Your task to perform on an android device: Is it going to rain this weekend? Image 0: 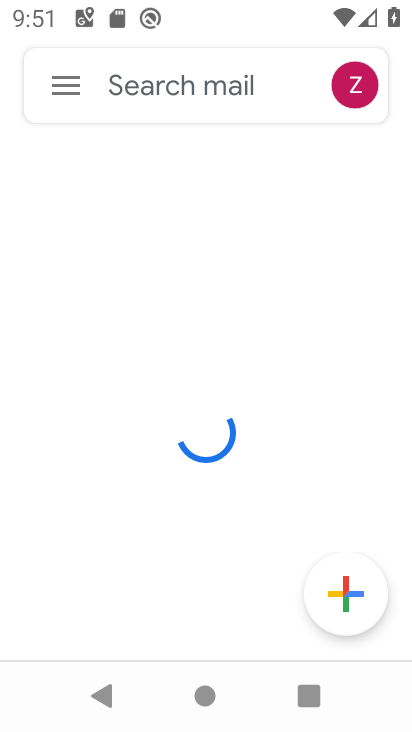
Step 0: press home button
Your task to perform on an android device: Is it going to rain this weekend? Image 1: 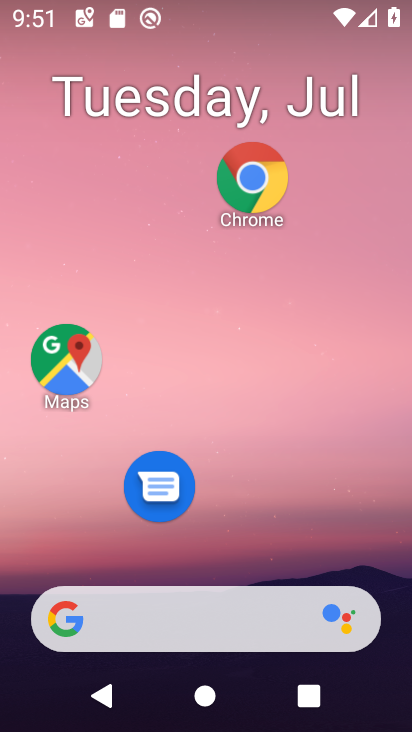
Step 1: drag from (254, 586) to (282, 300)
Your task to perform on an android device: Is it going to rain this weekend? Image 2: 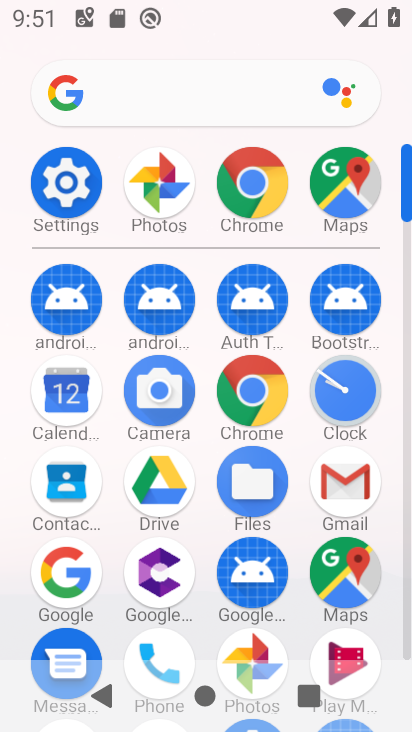
Step 2: drag from (238, 604) to (255, 202)
Your task to perform on an android device: Is it going to rain this weekend? Image 3: 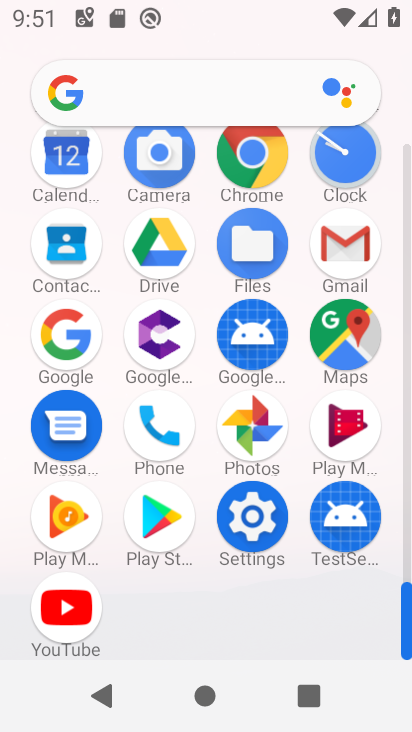
Step 3: click (67, 334)
Your task to perform on an android device: Is it going to rain this weekend? Image 4: 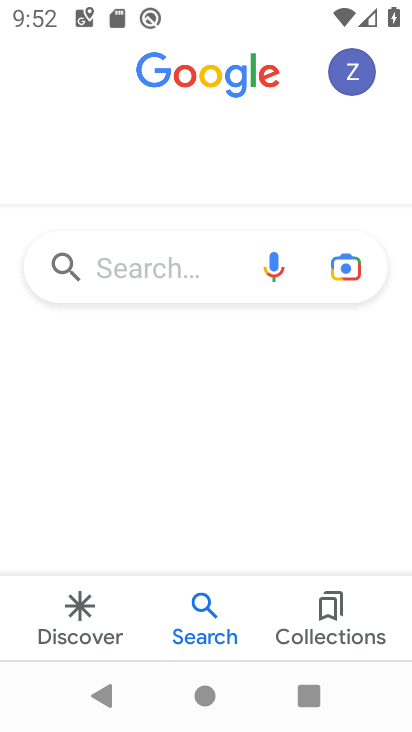
Step 4: click (120, 258)
Your task to perform on an android device: Is it going to rain this weekend? Image 5: 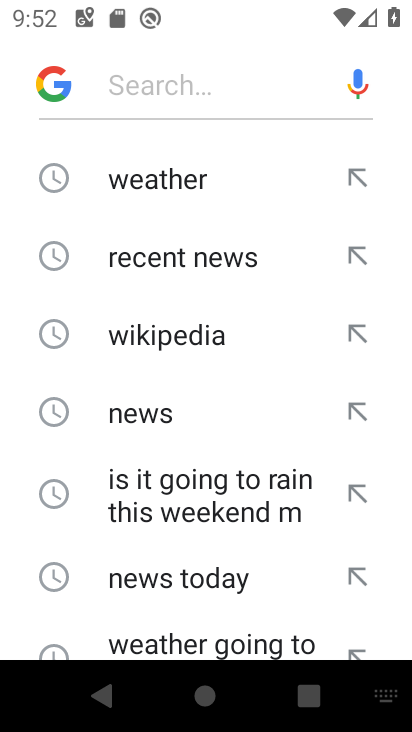
Step 5: click (172, 179)
Your task to perform on an android device: Is it going to rain this weekend? Image 6: 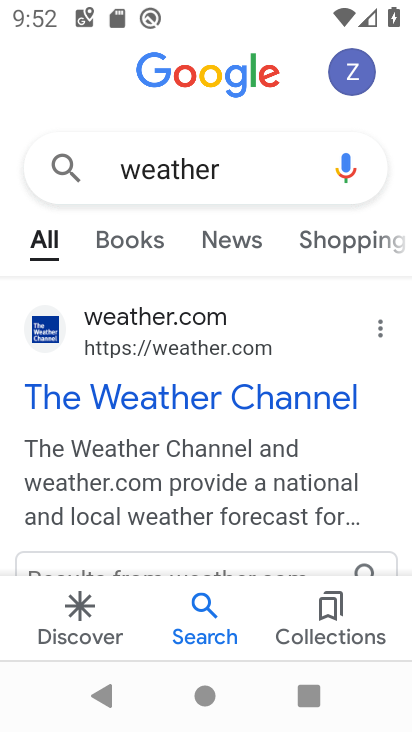
Step 6: click (250, 189)
Your task to perform on an android device: Is it going to rain this weekend? Image 7: 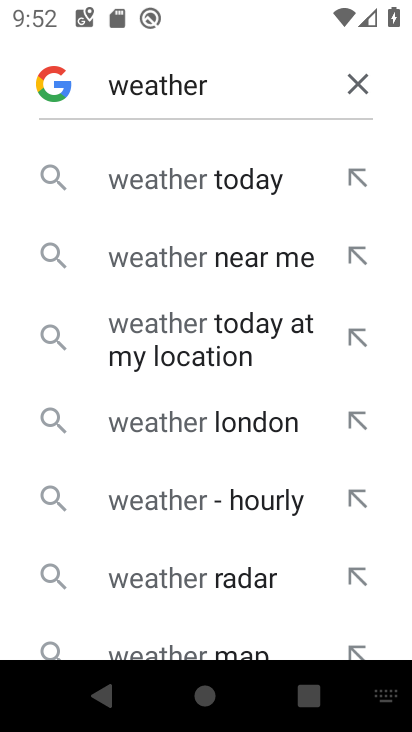
Step 7: type " weekend"
Your task to perform on an android device: Is it going to rain this weekend? Image 8: 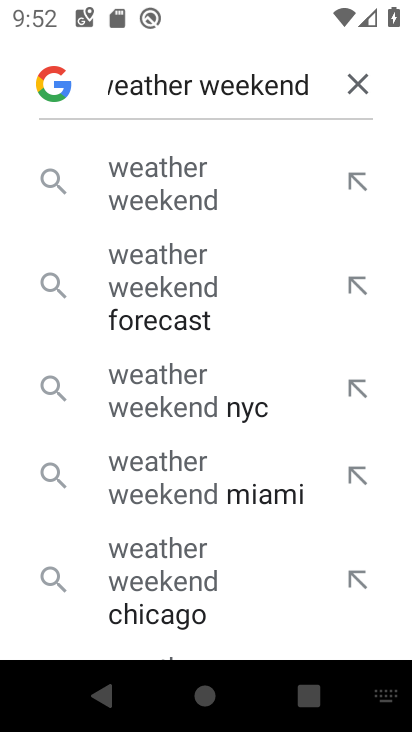
Step 8: click (213, 182)
Your task to perform on an android device: Is it going to rain this weekend? Image 9: 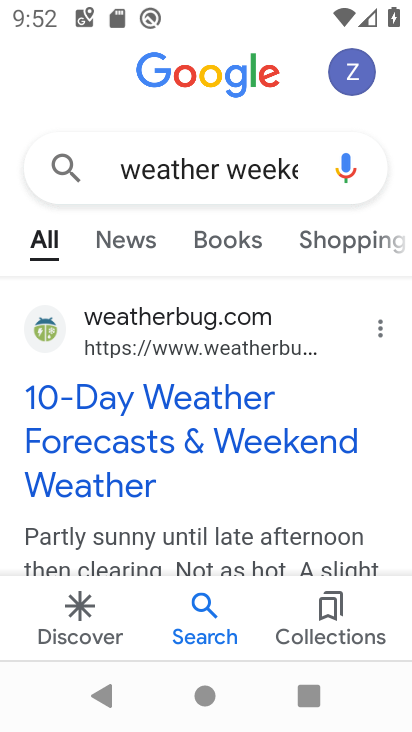
Step 9: click (177, 411)
Your task to perform on an android device: Is it going to rain this weekend? Image 10: 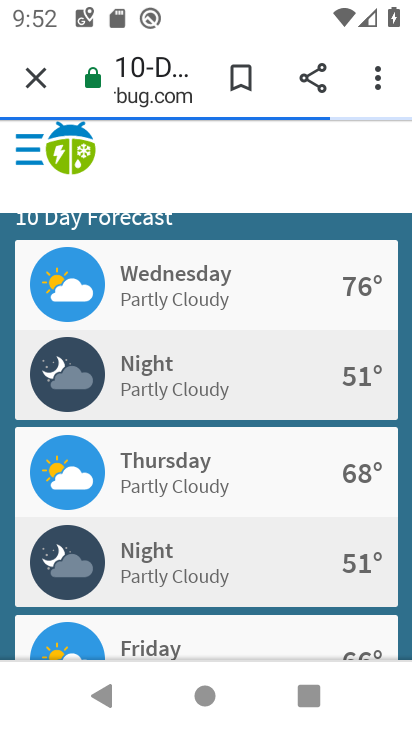
Step 10: task complete